Your task to perform on an android device: star an email in the gmail app Image 0: 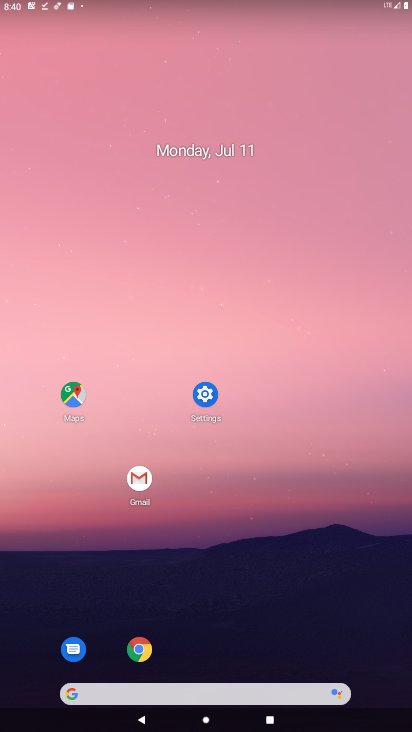
Step 0: click (145, 483)
Your task to perform on an android device: star an email in the gmail app Image 1: 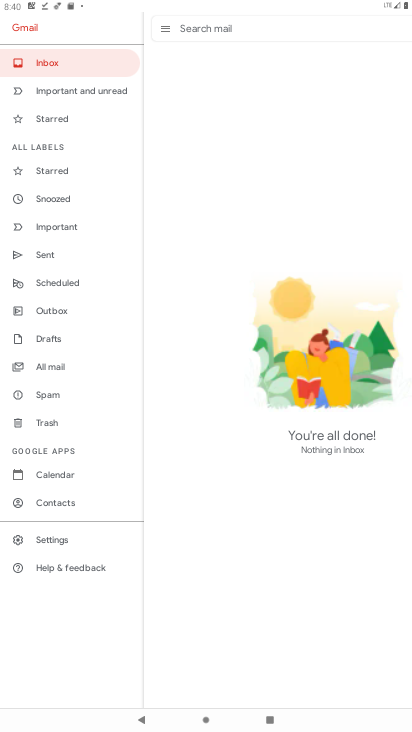
Step 1: task complete